Your task to perform on an android device: change your default location settings in chrome Image 0: 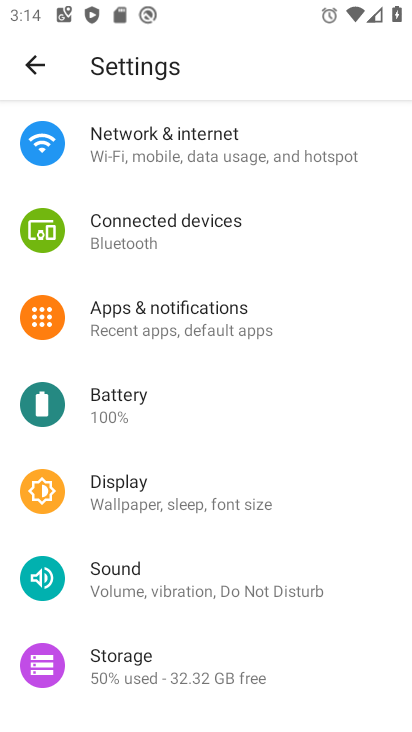
Step 0: press home button
Your task to perform on an android device: change your default location settings in chrome Image 1: 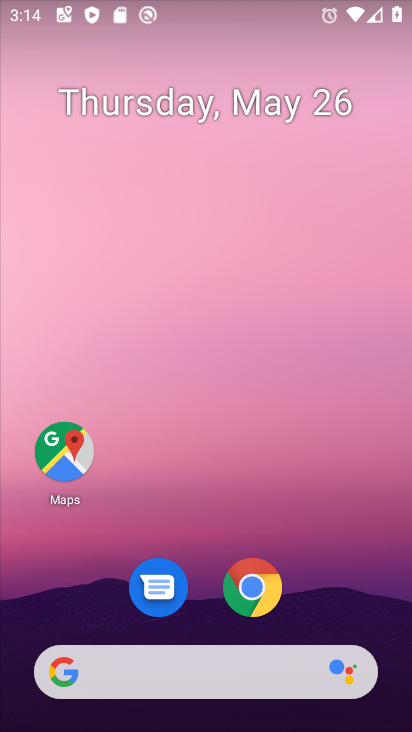
Step 1: drag from (356, 582) to (394, 121)
Your task to perform on an android device: change your default location settings in chrome Image 2: 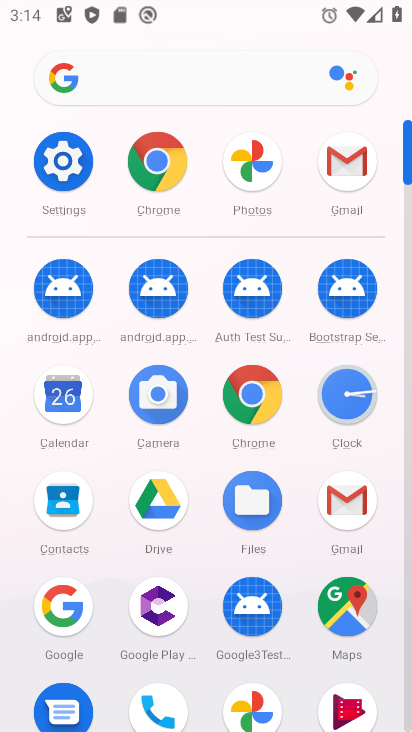
Step 2: click (264, 400)
Your task to perform on an android device: change your default location settings in chrome Image 3: 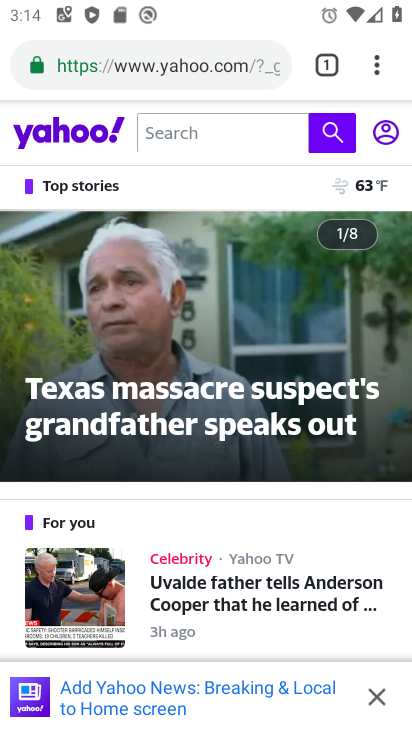
Step 3: click (375, 73)
Your task to perform on an android device: change your default location settings in chrome Image 4: 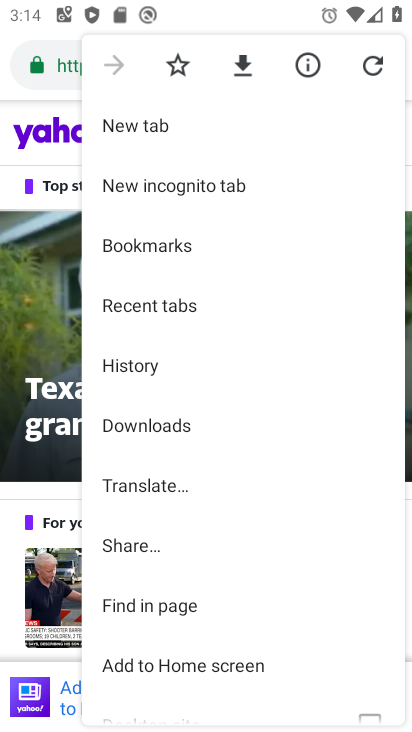
Step 4: drag from (307, 575) to (314, 440)
Your task to perform on an android device: change your default location settings in chrome Image 5: 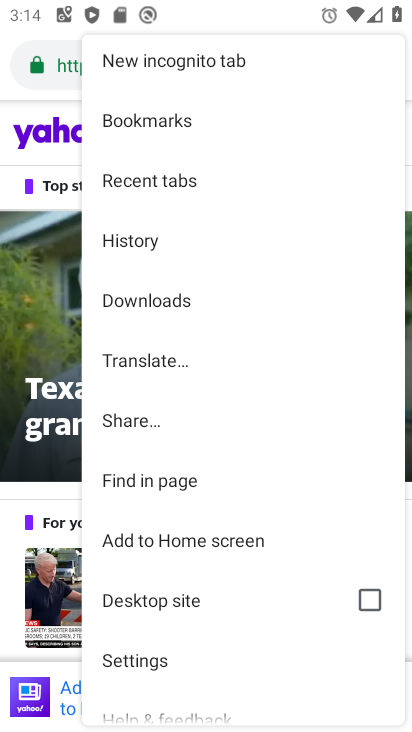
Step 5: drag from (294, 622) to (301, 494)
Your task to perform on an android device: change your default location settings in chrome Image 6: 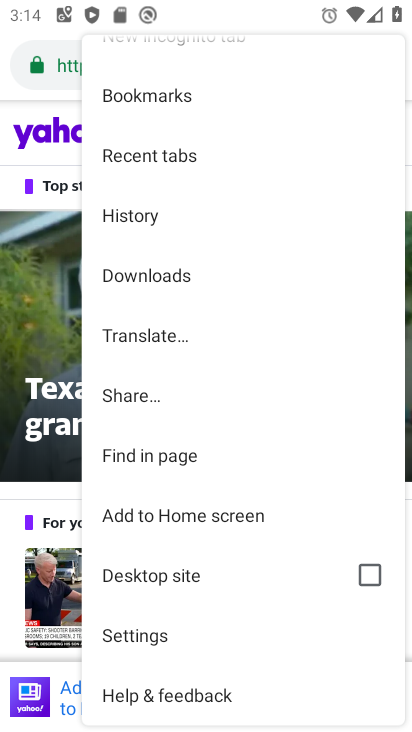
Step 6: click (183, 634)
Your task to perform on an android device: change your default location settings in chrome Image 7: 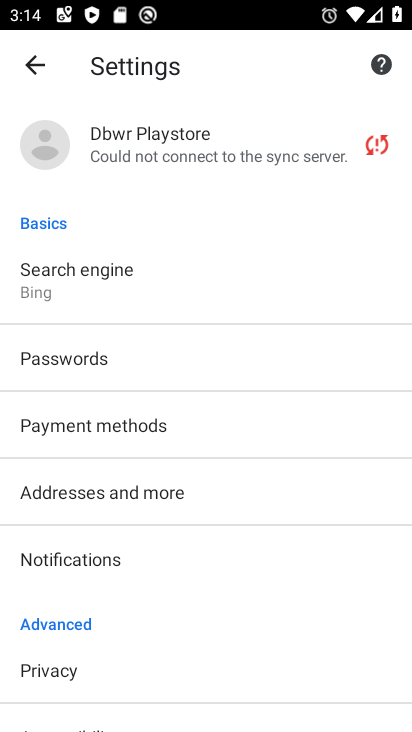
Step 7: drag from (280, 620) to (283, 551)
Your task to perform on an android device: change your default location settings in chrome Image 8: 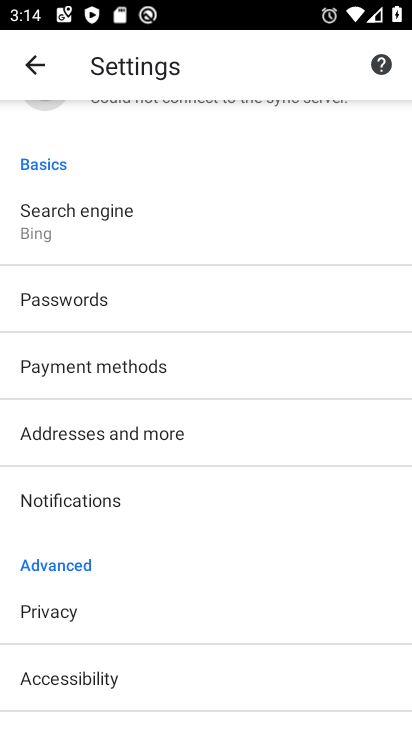
Step 8: drag from (294, 638) to (296, 563)
Your task to perform on an android device: change your default location settings in chrome Image 9: 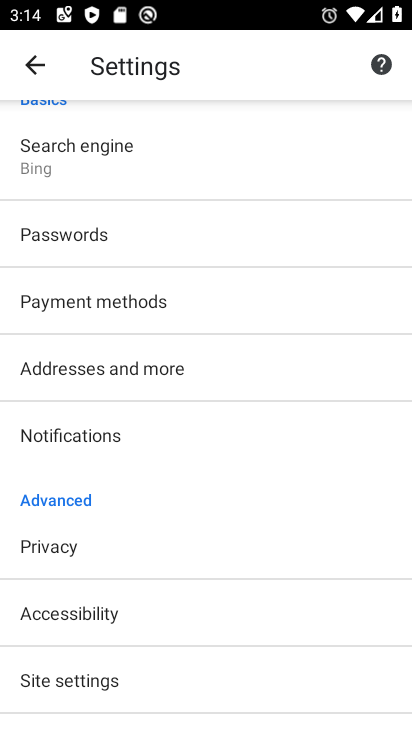
Step 9: drag from (326, 650) to (337, 570)
Your task to perform on an android device: change your default location settings in chrome Image 10: 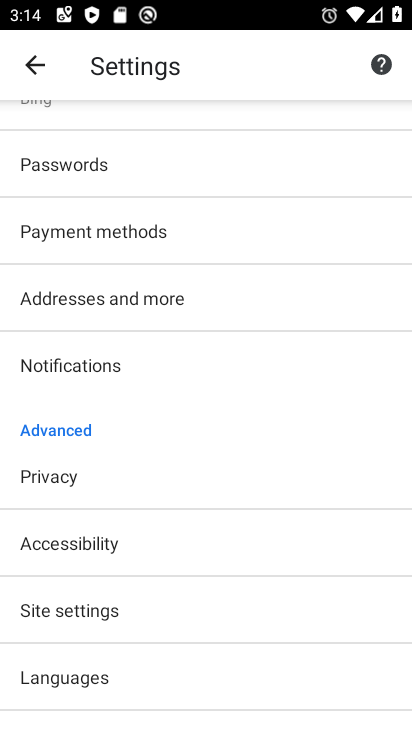
Step 10: drag from (328, 619) to (326, 556)
Your task to perform on an android device: change your default location settings in chrome Image 11: 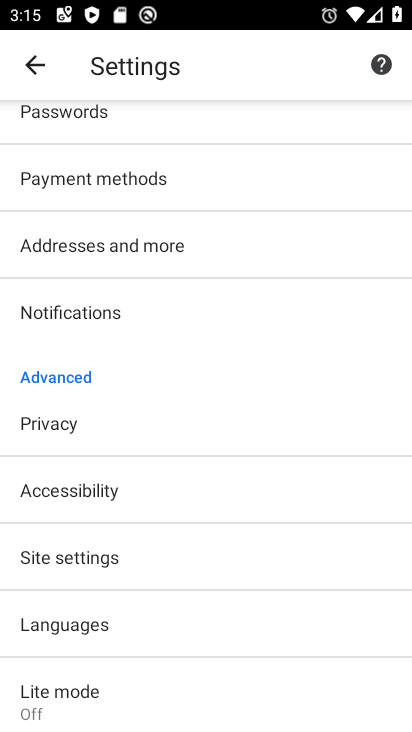
Step 11: drag from (327, 674) to (331, 460)
Your task to perform on an android device: change your default location settings in chrome Image 12: 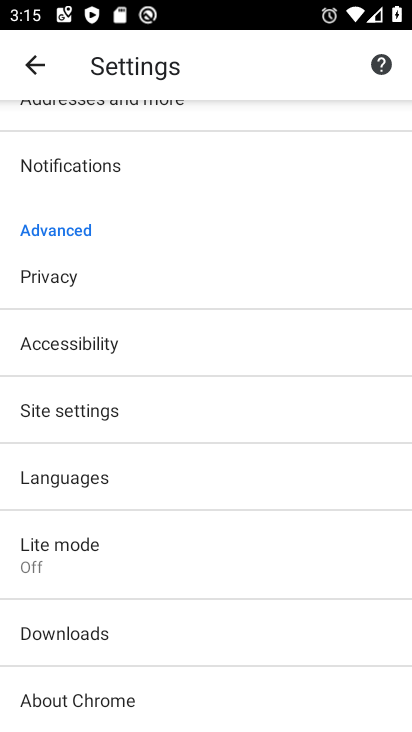
Step 12: click (321, 406)
Your task to perform on an android device: change your default location settings in chrome Image 13: 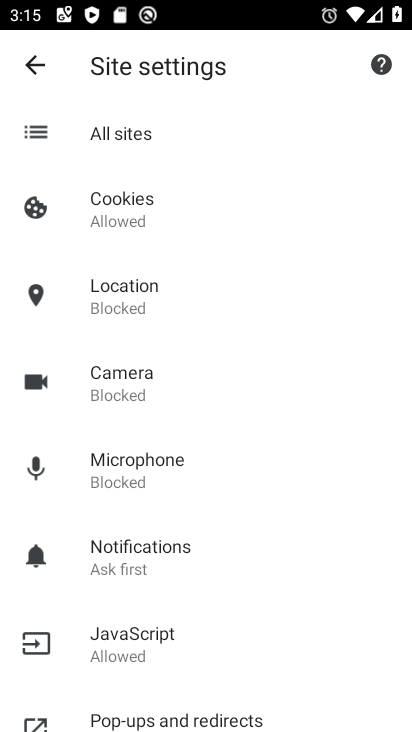
Step 13: drag from (311, 267) to (321, 406)
Your task to perform on an android device: change your default location settings in chrome Image 14: 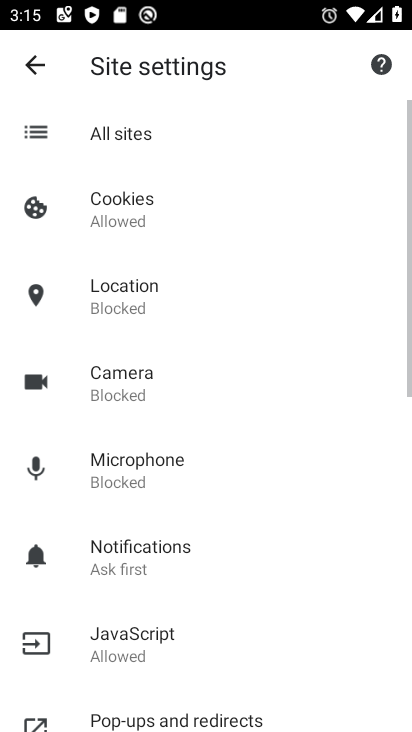
Step 14: drag from (313, 495) to (343, 355)
Your task to perform on an android device: change your default location settings in chrome Image 15: 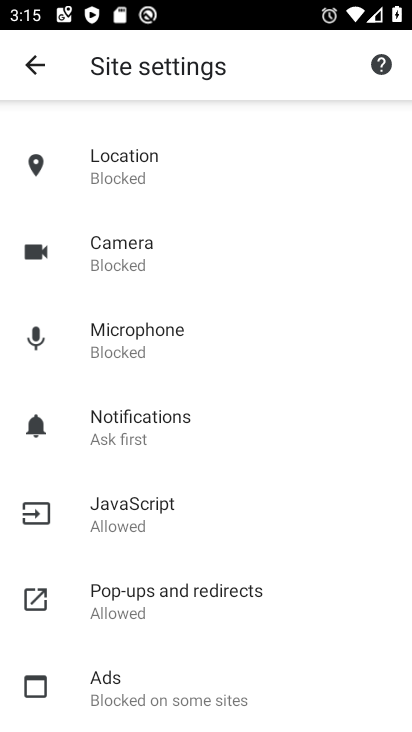
Step 15: drag from (334, 505) to (349, 378)
Your task to perform on an android device: change your default location settings in chrome Image 16: 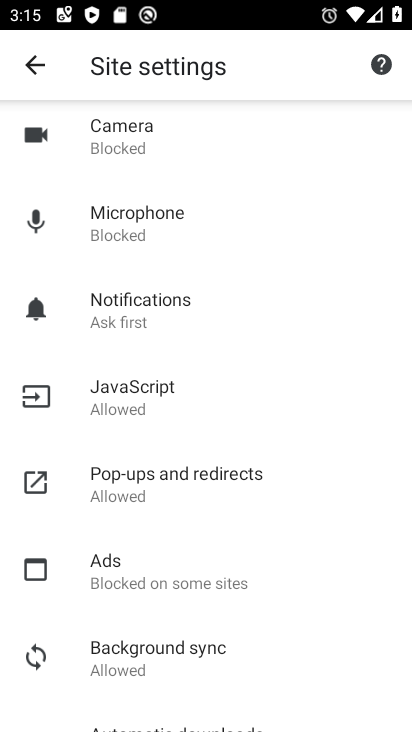
Step 16: drag from (338, 527) to (329, 315)
Your task to perform on an android device: change your default location settings in chrome Image 17: 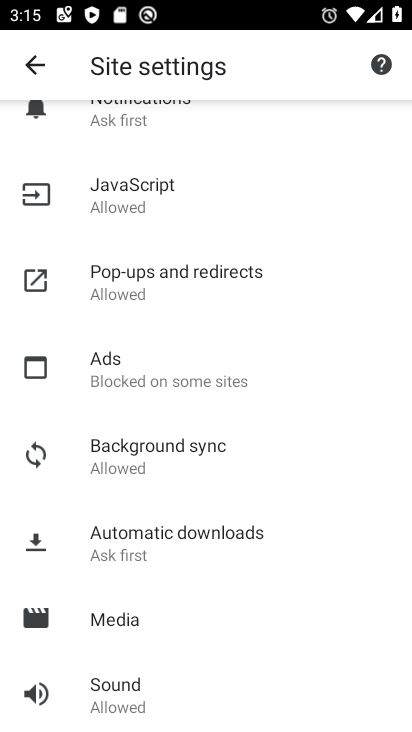
Step 17: drag from (325, 581) to (322, 357)
Your task to perform on an android device: change your default location settings in chrome Image 18: 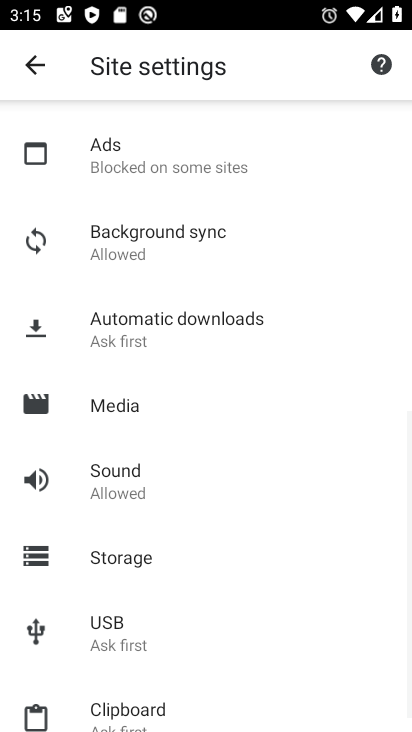
Step 18: drag from (312, 584) to (323, 367)
Your task to perform on an android device: change your default location settings in chrome Image 19: 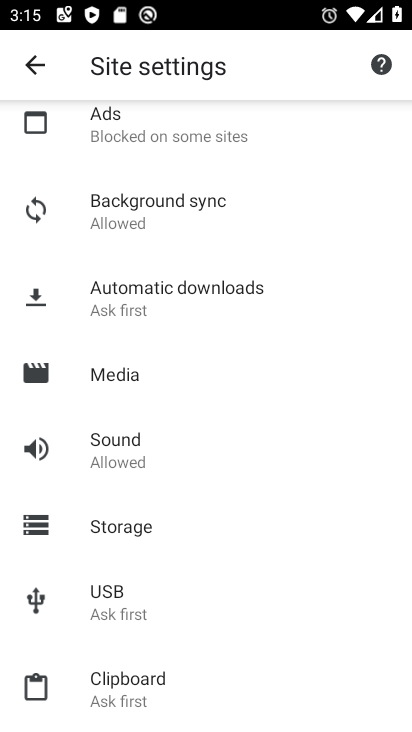
Step 19: drag from (330, 300) to (315, 453)
Your task to perform on an android device: change your default location settings in chrome Image 20: 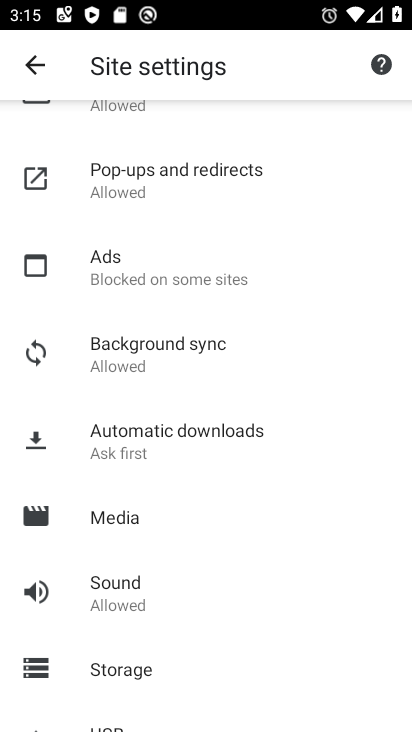
Step 20: drag from (305, 333) to (315, 442)
Your task to perform on an android device: change your default location settings in chrome Image 21: 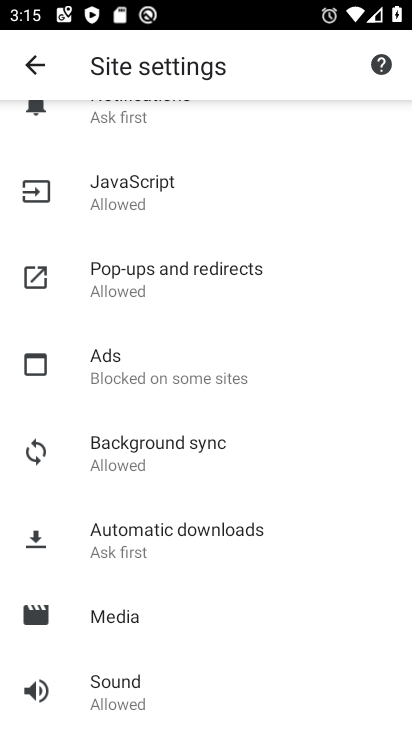
Step 21: drag from (326, 275) to (312, 445)
Your task to perform on an android device: change your default location settings in chrome Image 22: 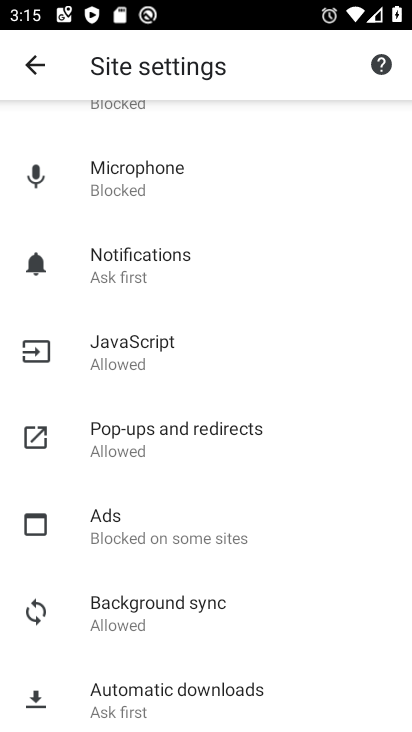
Step 22: drag from (309, 236) to (315, 402)
Your task to perform on an android device: change your default location settings in chrome Image 23: 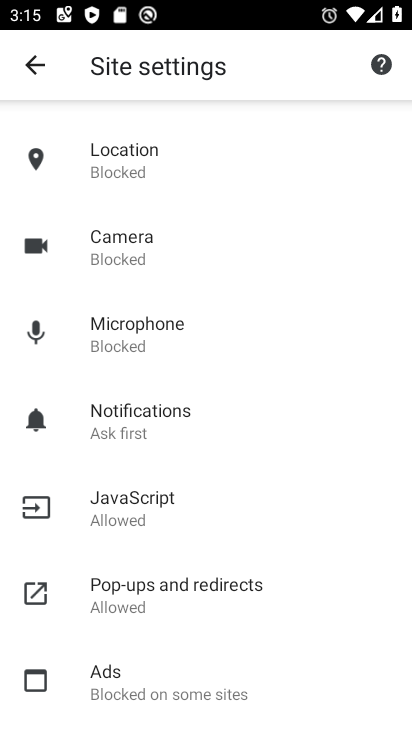
Step 23: drag from (296, 252) to (284, 407)
Your task to perform on an android device: change your default location settings in chrome Image 24: 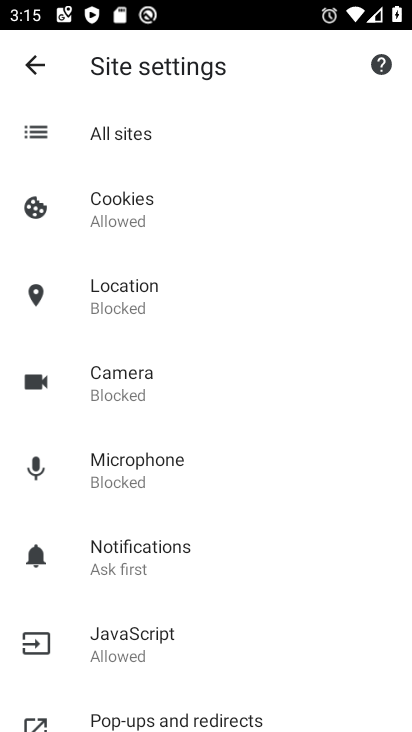
Step 24: click (181, 298)
Your task to perform on an android device: change your default location settings in chrome Image 25: 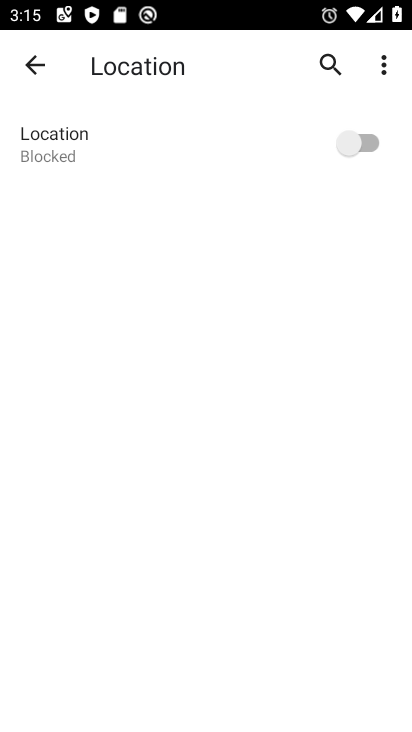
Step 25: click (353, 138)
Your task to perform on an android device: change your default location settings in chrome Image 26: 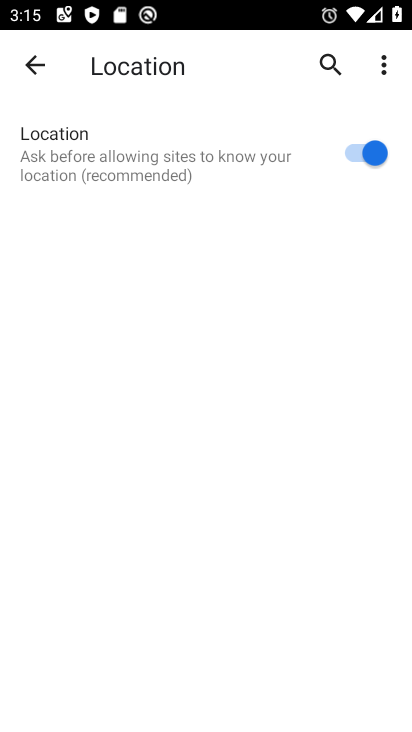
Step 26: task complete